Your task to perform on an android device: see sites visited before in the chrome app Image 0: 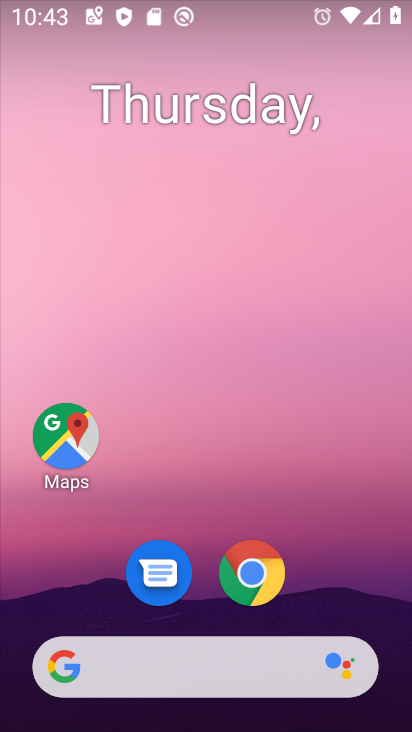
Step 0: click (266, 577)
Your task to perform on an android device: see sites visited before in the chrome app Image 1: 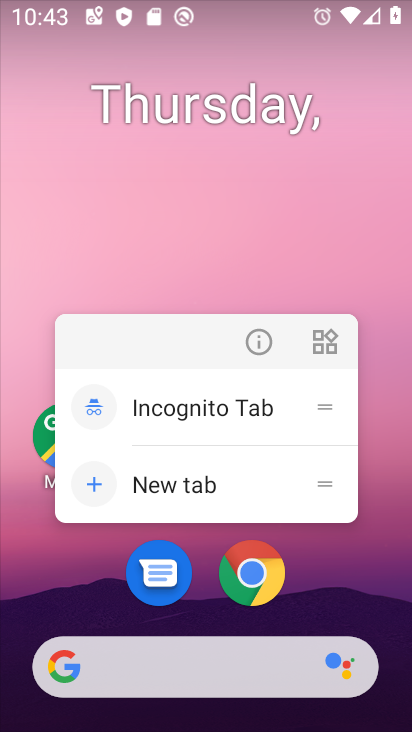
Step 1: click (261, 570)
Your task to perform on an android device: see sites visited before in the chrome app Image 2: 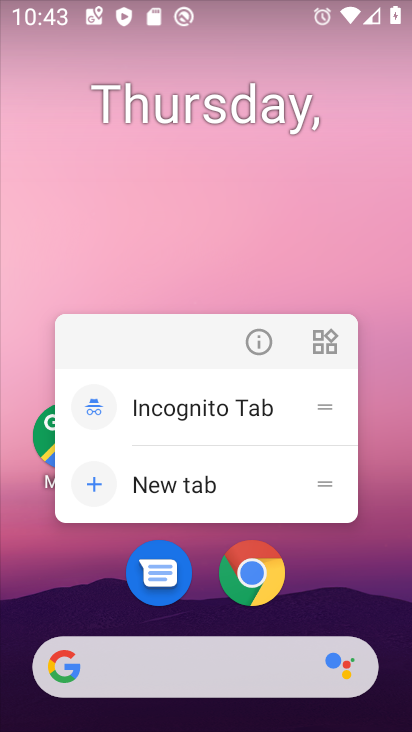
Step 2: click (261, 564)
Your task to perform on an android device: see sites visited before in the chrome app Image 3: 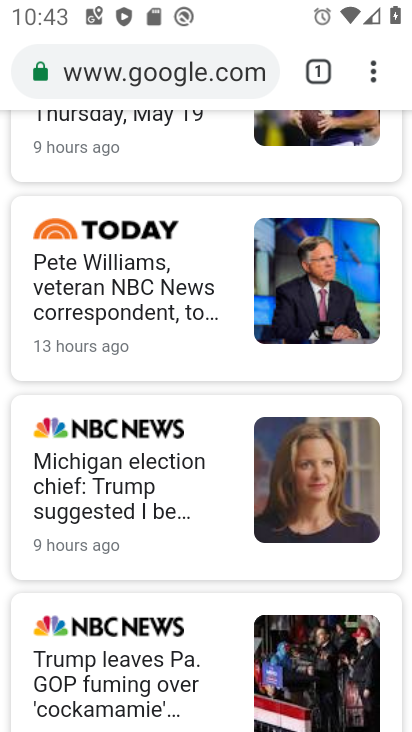
Step 3: click (384, 67)
Your task to perform on an android device: see sites visited before in the chrome app Image 4: 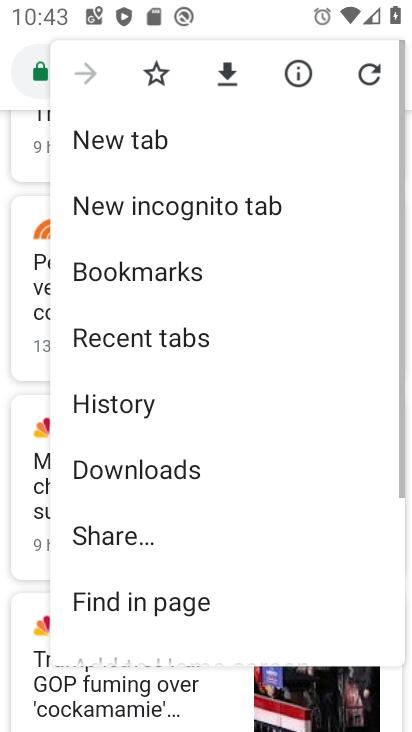
Step 4: drag from (235, 519) to (251, 272)
Your task to perform on an android device: see sites visited before in the chrome app Image 5: 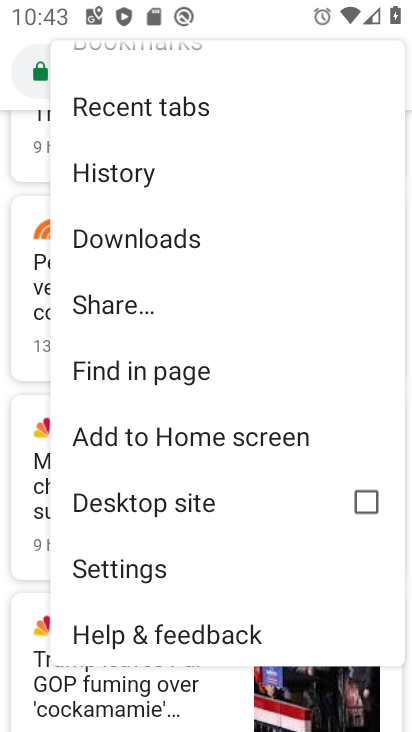
Step 5: drag from (240, 193) to (234, 431)
Your task to perform on an android device: see sites visited before in the chrome app Image 6: 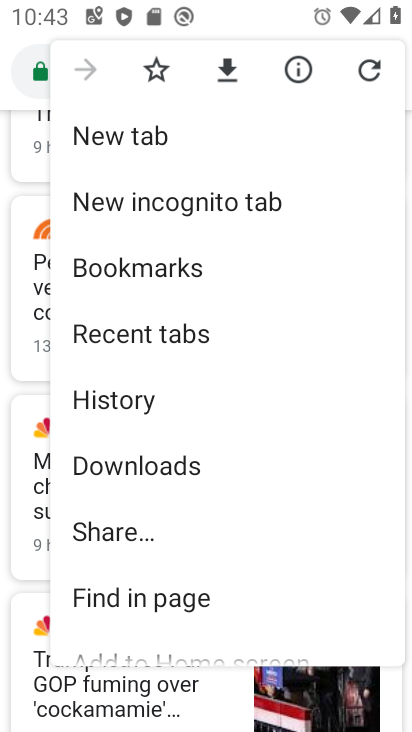
Step 6: click (139, 392)
Your task to perform on an android device: see sites visited before in the chrome app Image 7: 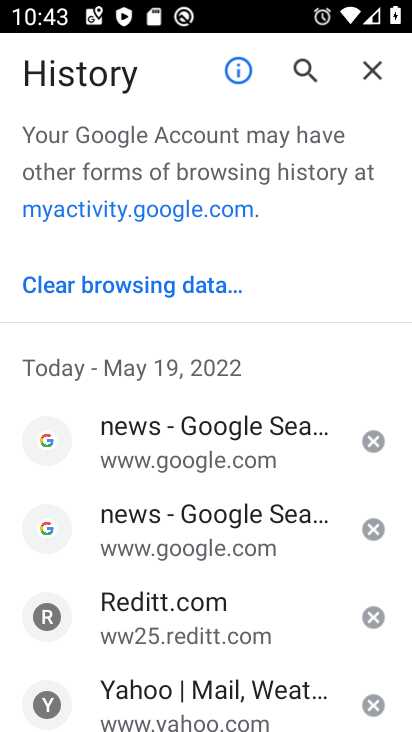
Step 7: task complete